Your task to perform on an android device: open app "Pinterest" (install if not already installed) Image 0: 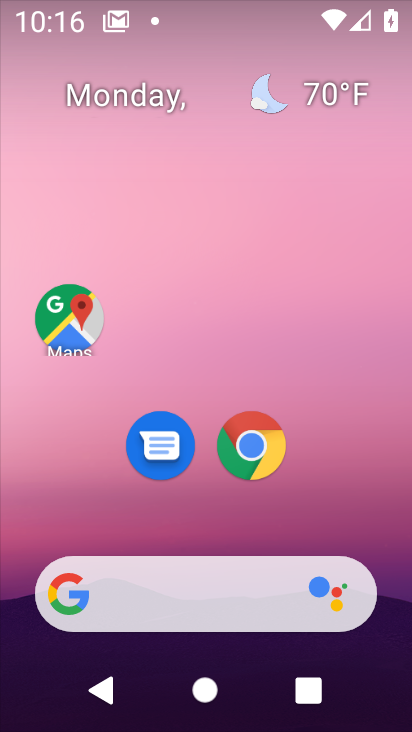
Step 0: click (347, 353)
Your task to perform on an android device: open app "Pinterest" (install if not already installed) Image 1: 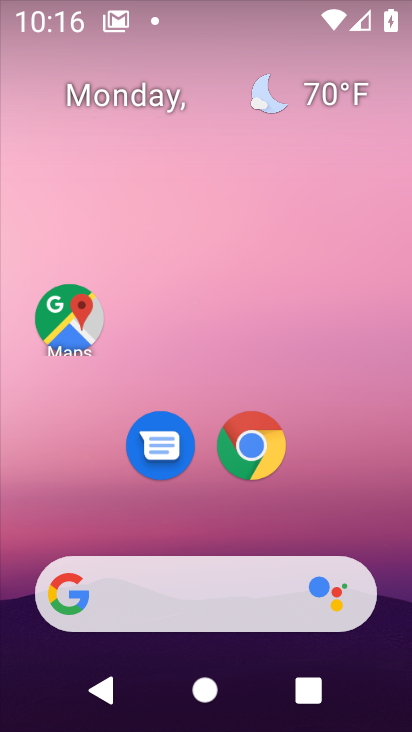
Step 1: drag from (260, 586) to (326, 139)
Your task to perform on an android device: open app "Pinterest" (install if not already installed) Image 2: 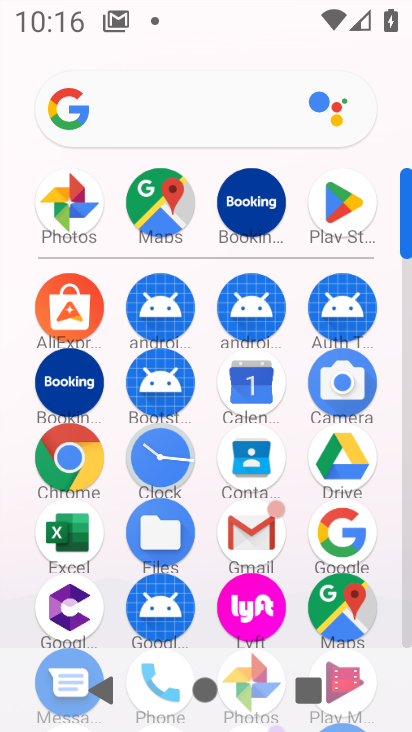
Step 2: click (359, 218)
Your task to perform on an android device: open app "Pinterest" (install if not already installed) Image 3: 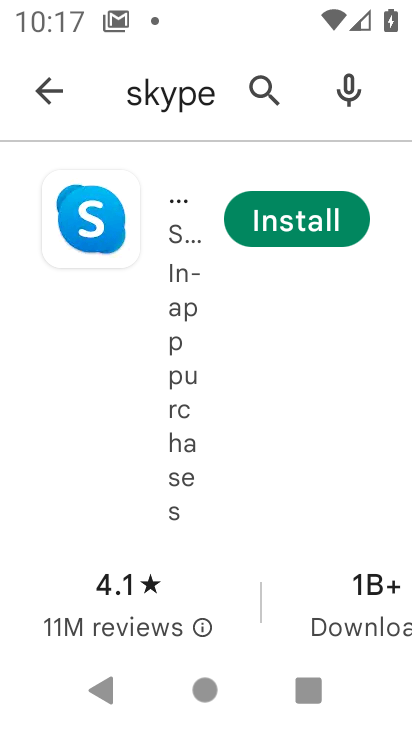
Step 3: click (50, 100)
Your task to perform on an android device: open app "Pinterest" (install if not already installed) Image 4: 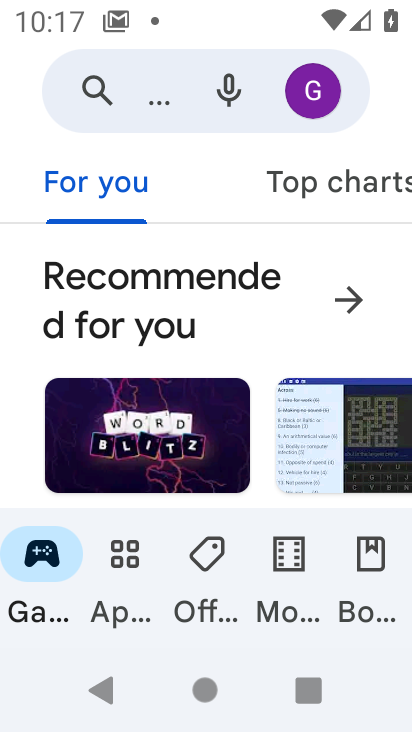
Step 4: click (98, 88)
Your task to perform on an android device: open app "Pinterest" (install if not already installed) Image 5: 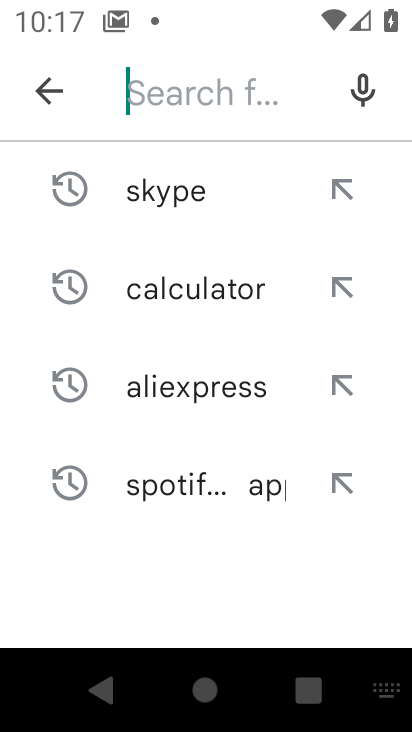
Step 5: type "Pinterest"
Your task to perform on an android device: open app "Pinterest" (install if not already installed) Image 6: 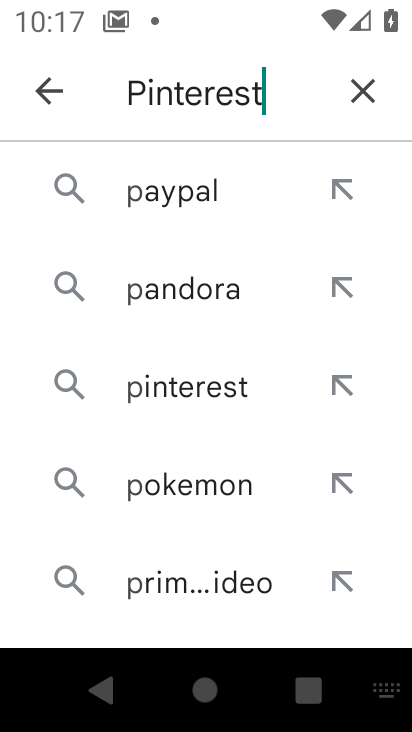
Step 6: type ""
Your task to perform on an android device: open app "Pinterest" (install if not already installed) Image 7: 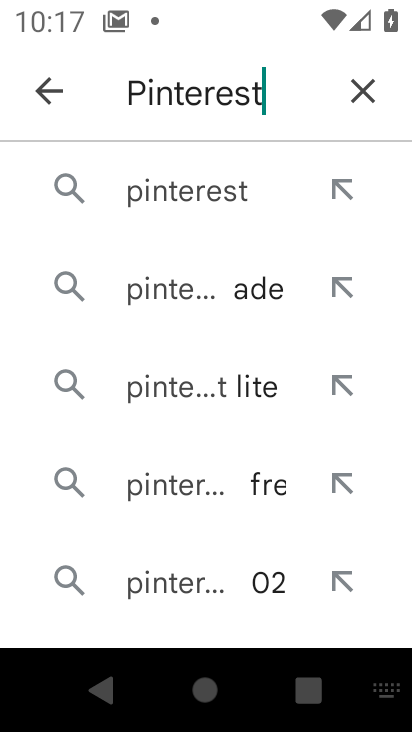
Step 7: click (173, 218)
Your task to perform on an android device: open app "Pinterest" (install if not already installed) Image 8: 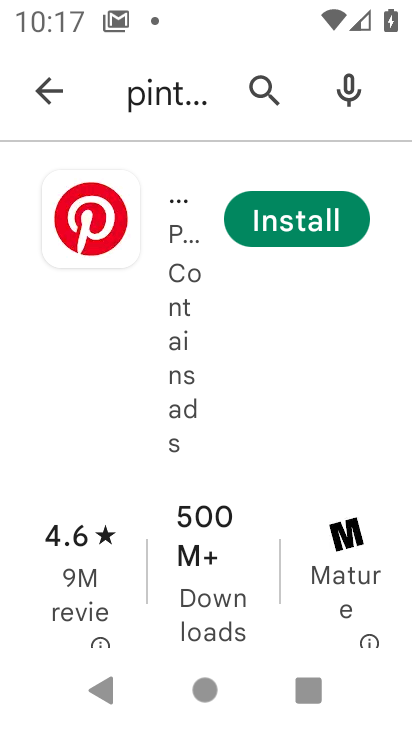
Step 8: click (339, 239)
Your task to perform on an android device: open app "Pinterest" (install if not already installed) Image 9: 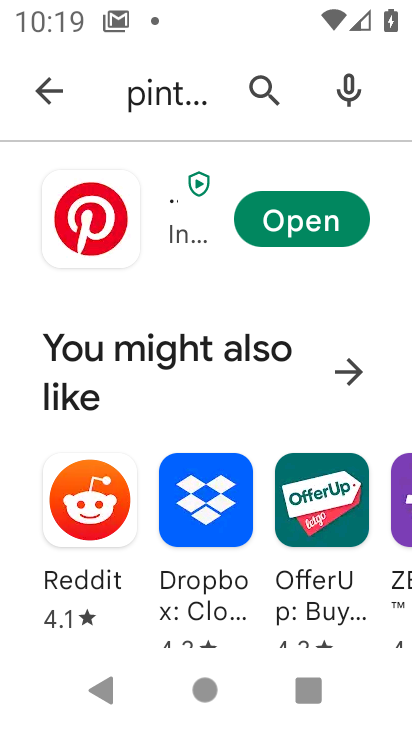
Step 9: click (298, 225)
Your task to perform on an android device: open app "Pinterest" (install if not already installed) Image 10: 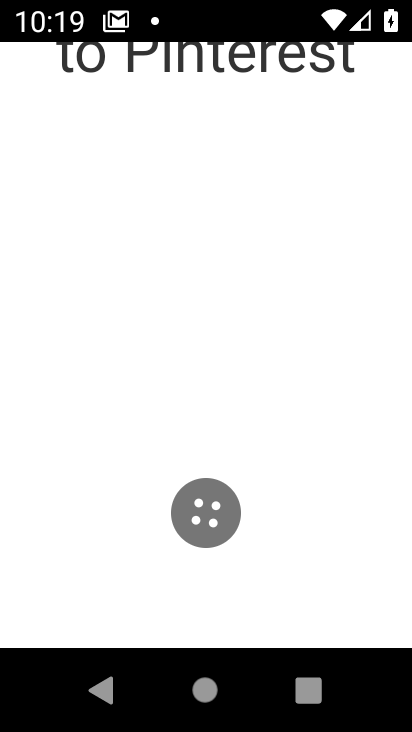
Step 10: task complete